Your task to perform on an android device: turn on showing notifications on the lock screen Image 0: 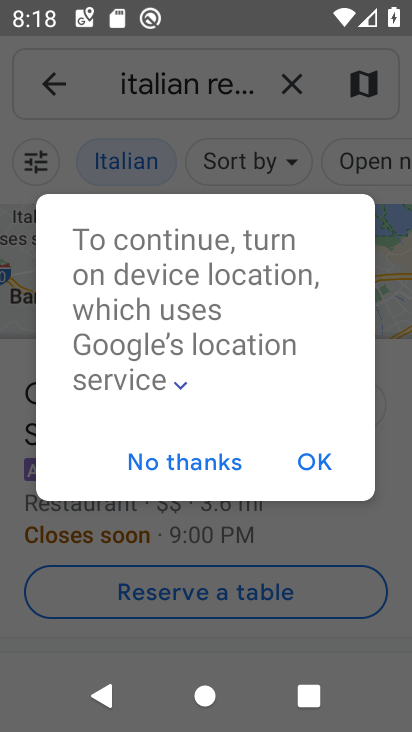
Step 0: press home button
Your task to perform on an android device: turn on showing notifications on the lock screen Image 1: 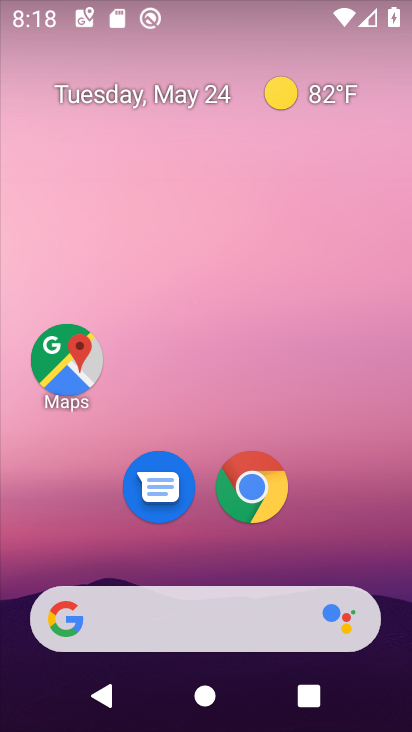
Step 1: drag from (365, 524) to (374, 192)
Your task to perform on an android device: turn on showing notifications on the lock screen Image 2: 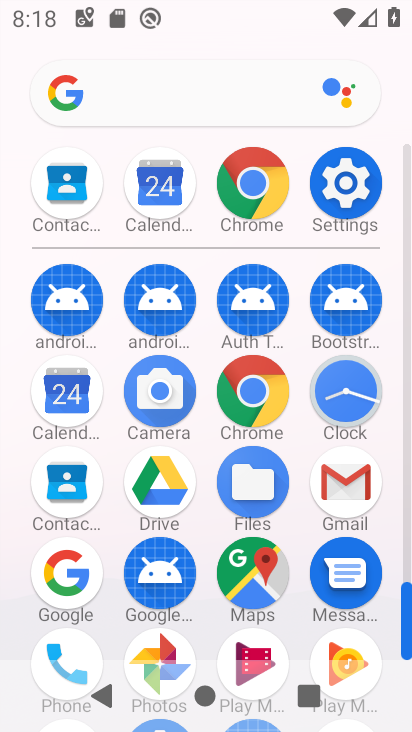
Step 2: click (330, 199)
Your task to perform on an android device: turn on showing notifications on the lock screen Image 3: 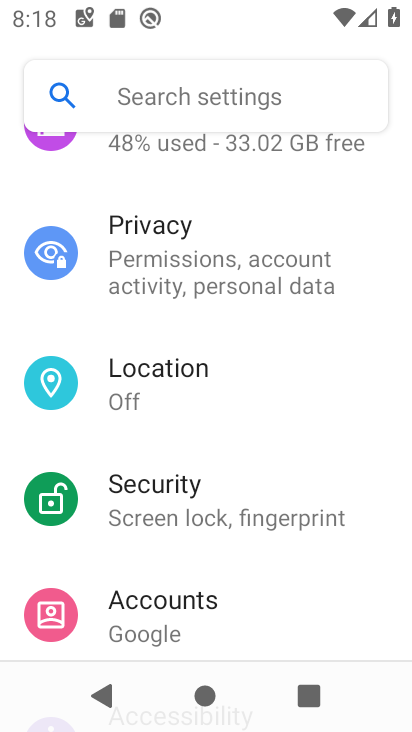
Step 3: drag from (237, 215) to (216, 604)
Your task to perform on an android device: turn on showing notifications on the lock screen Image 4: 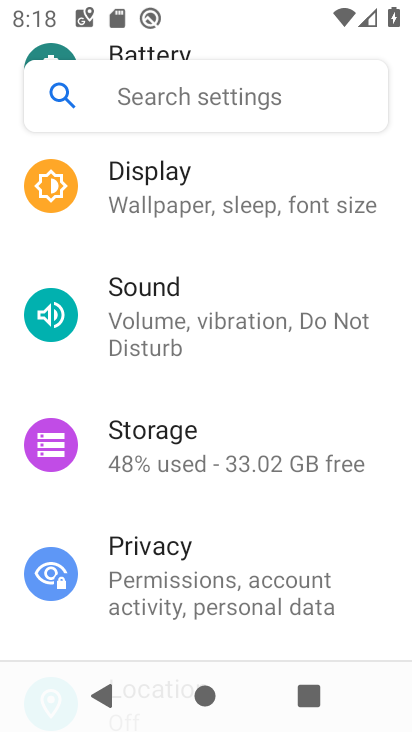
Step 4: drag from (200, 168) to (190, 437)
Your task to perform on an android device: turn on showing notifications on the lock screen Image 5: 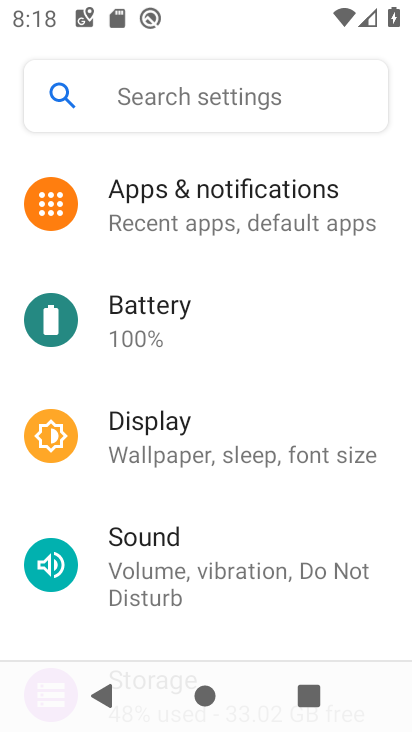
Step 5: click (255, 182)
Your task to perform on an android device: turn on showing notifications on the lock screen Image 6: 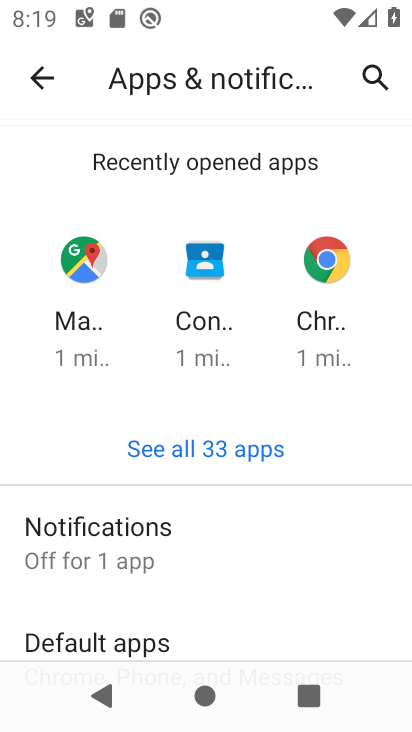
Step 6: click (173, 540)
Your task to perform on an android device: turn on showing notifications on the lock screen Image 7: 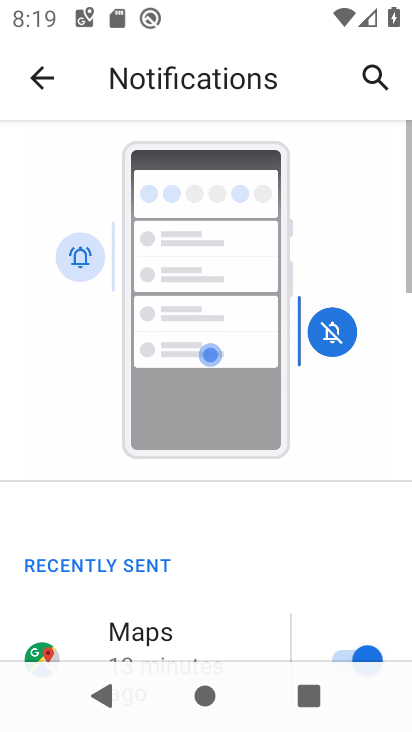
Step 7: drag from (214, 581) to (314, 171)
Your task to perform on an android device: turn on showing notifications on the lock screen Image 8: 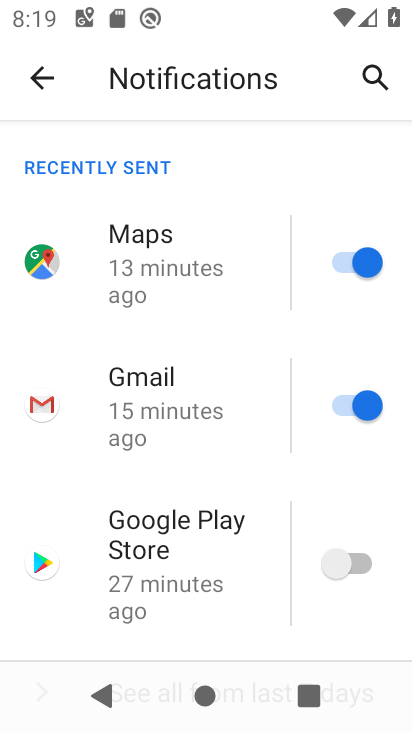
Step 8: drag from (179, 599) to (235, 171)
Your task to perform on an android device: turn on showing notifications on the lock screen Image 9: 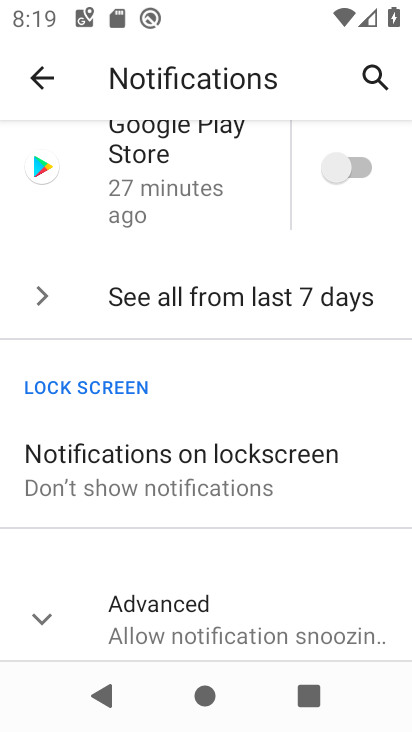
Step 9: click (133, 496)
Your task to perform on an android device: turn on showing notifications on the lock screen Image 10: 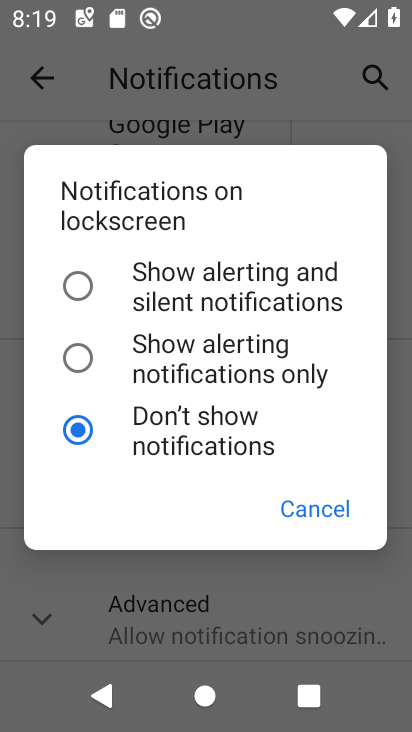
Step 10: click (83, 286)
Your task to perform on an android device: turn on showing notifications on the lock screen Image 11: 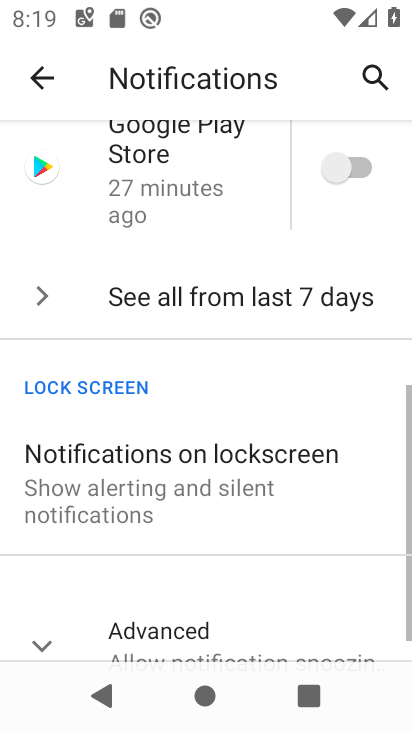
Step 11: task complete